Your task to perform on an android device: show emergency info Image 0: 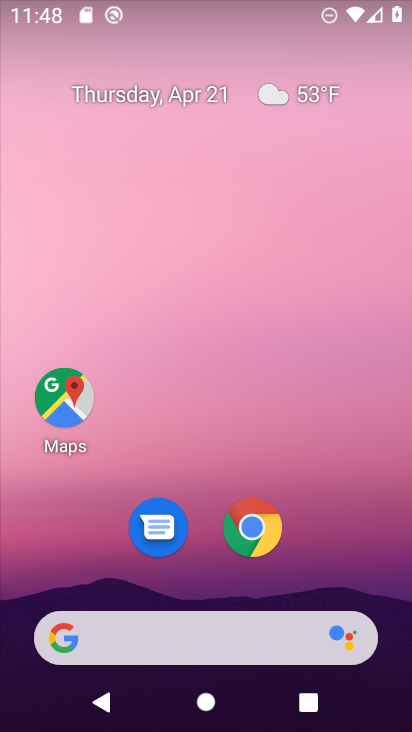
Step 0: drag from (360, 558) to (345, 193)
Your task to perform on an android device: show emergency info Image 1: 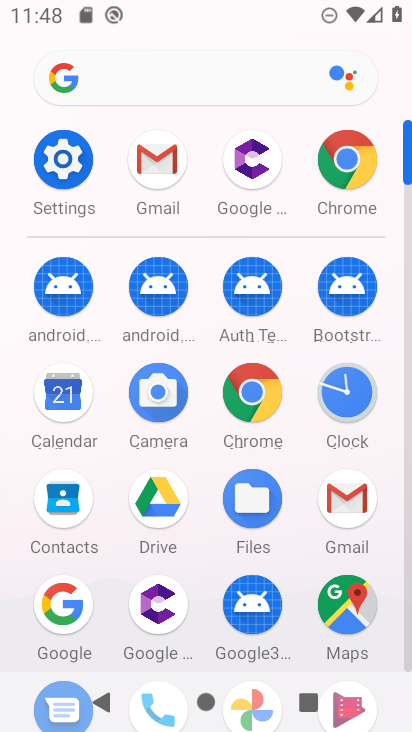
Step 1: click (66, 144)
Your task to perform on an android device: show emergency info Image 2: 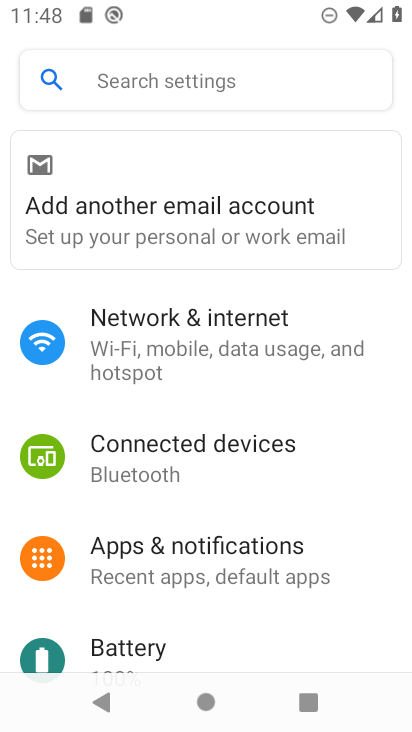
Step 2: drag from (376, 528) to (373, 442)
Your task to perform on an android device: show emergency info Image 3: 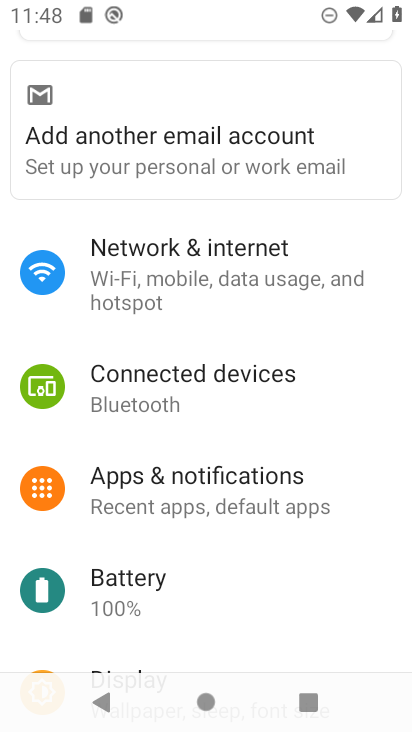
Step 3: drag from (365, 548) to (360, 425)
Your task to perform on an android device: show emergency info Image 4: 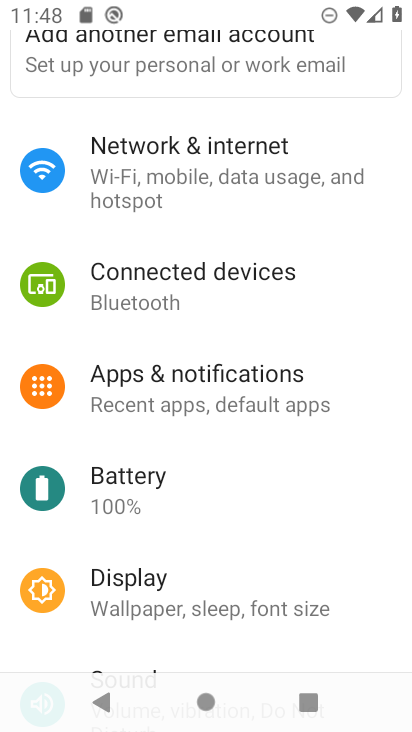
Step 4: drag from (361, 568) to (367, 435)
Your task to perform on an android device: show emergency info Image 5: 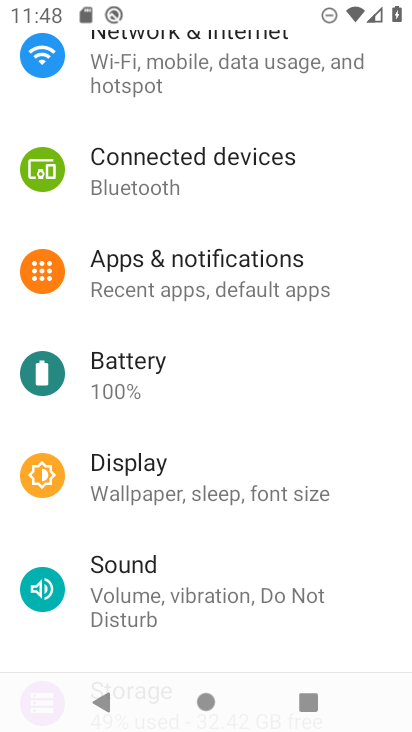
Step 5: drag from (365, 569) to (366, 442)
Your task to perform on an android device: show emergency info Image 6: 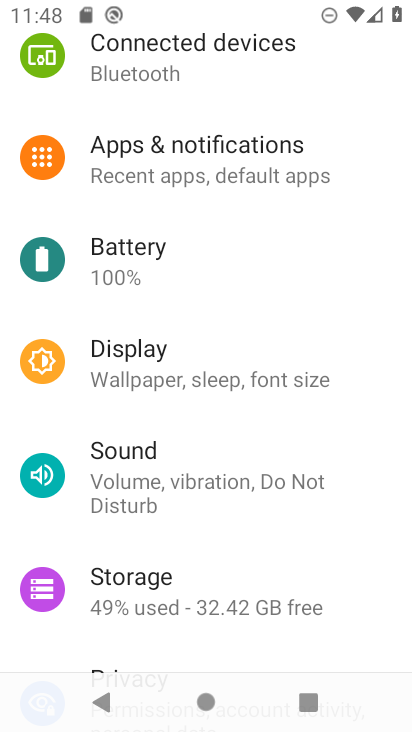
Step 6: drag from (363, 592) to (373, 449)
Your task to perform on an android device: show emergency info Image 7: 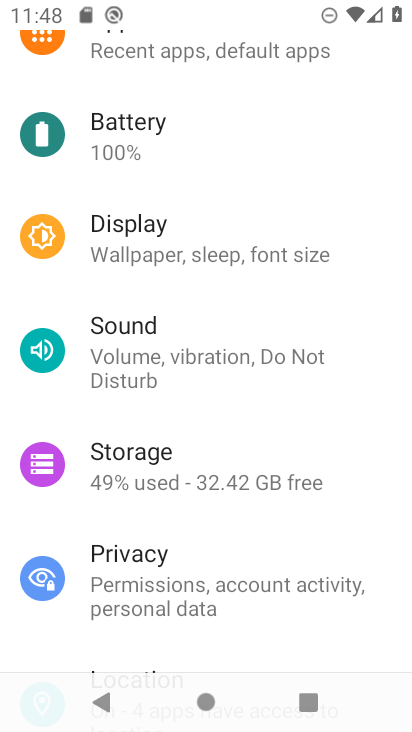
Step 7: drag from (365, 622) to (371, 468)
Your task to perform on an android device: show emergency info Image 8: 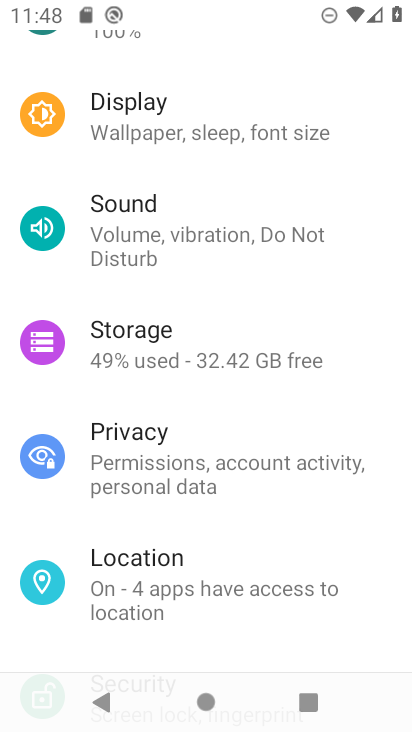
Step 8: drag from (374, 613) to (383, 437)
Your task to perform on an android device: show emergency info Image 9: 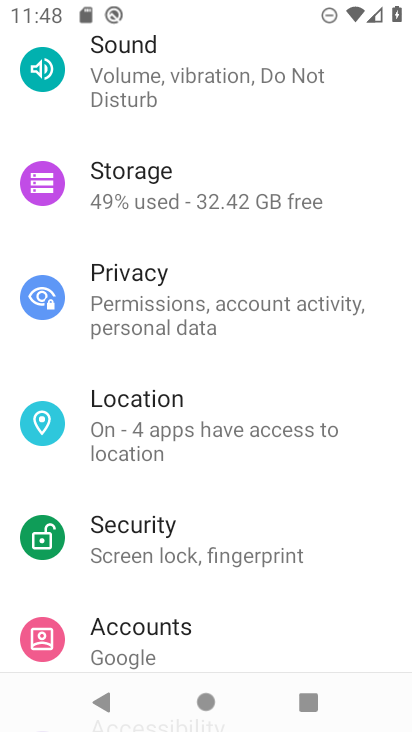
Step 9: drag from (358, 591) to (367, 438)
Your task to perform on an android device: show emergency info Image 10: 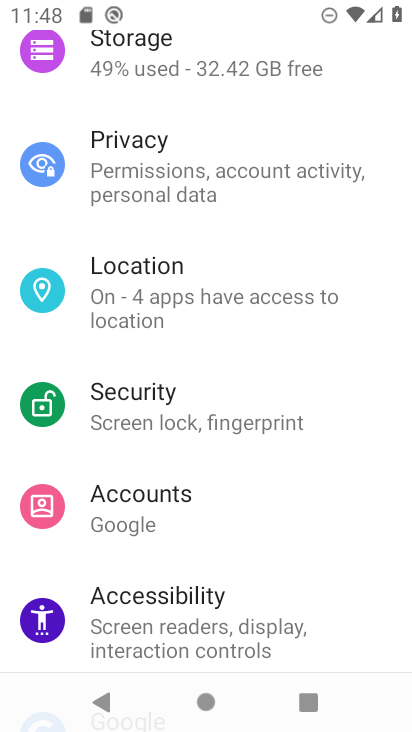
Step 10: drag from (349, 604) to (350, 426)
Your task to perform on an android device: show emergency info Image 11: 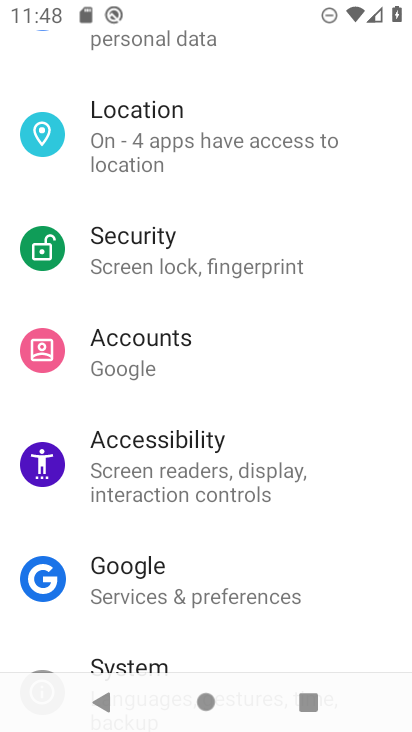
Step 11: drag from (350, 609) to (357, 473)
Your task to perform on an android device: show emergency info Image 12: 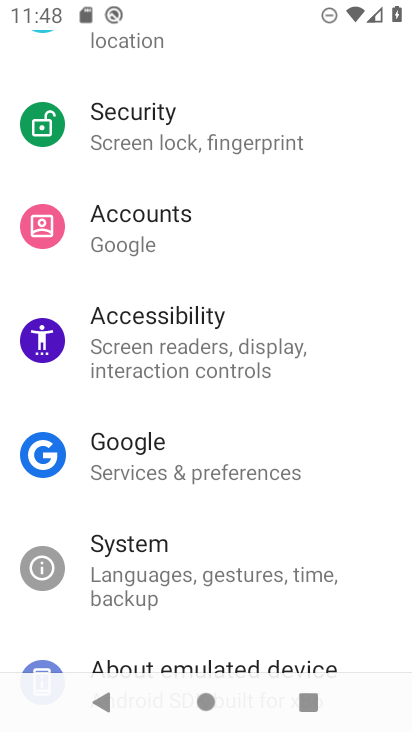
Step 12: drag from (355, 614) to (388, 445)
Your task to perform on an android device: show emergency info Image 13: 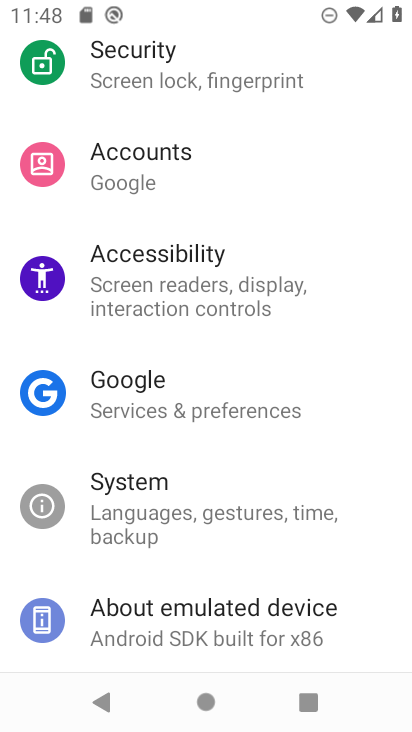
Step 13: click (290, 628)
Your task to perform on an android device: show emergency info Image 14: 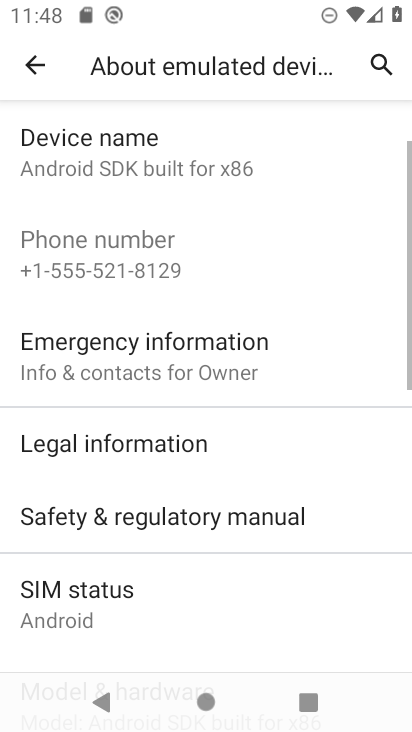
Step 14: click (232, 334)
Your task to perform on an android device: show emergency info Image 15: 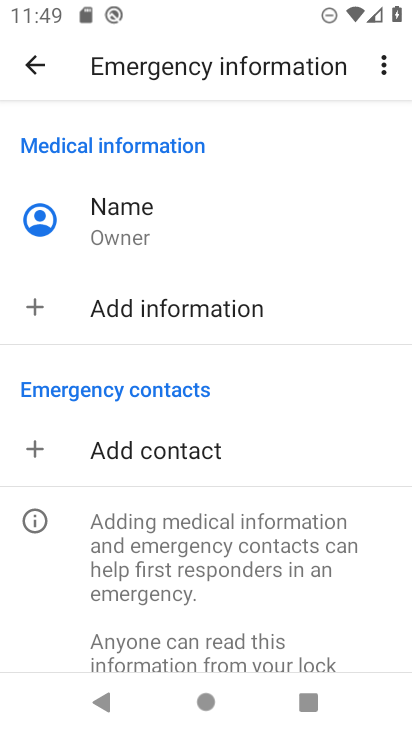
Step 15: task complete